Your task to perform on an android device: Go to Google Image 0: 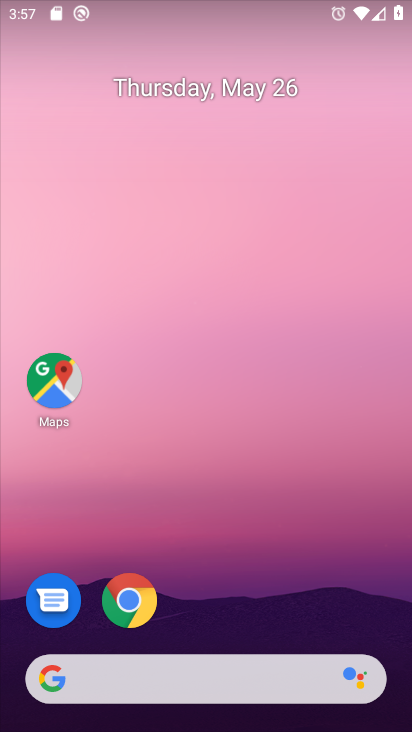
Step 0: click (151, 666)
Your task to perform on an android device: Go to Google Image 1: 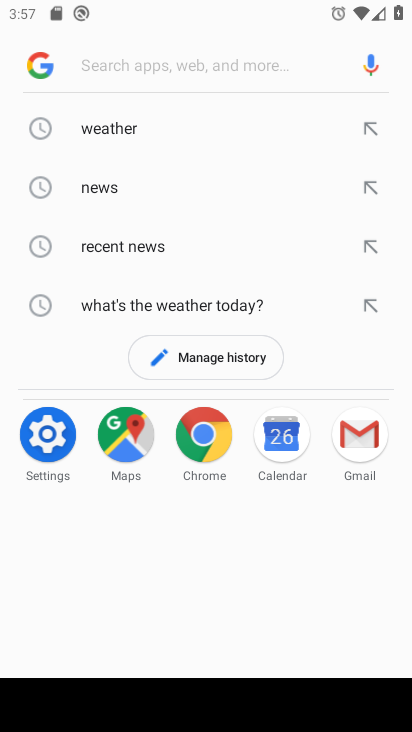
Step 1: click (41, 50)
Your task to perform on an android device: Go to Google Image 2: 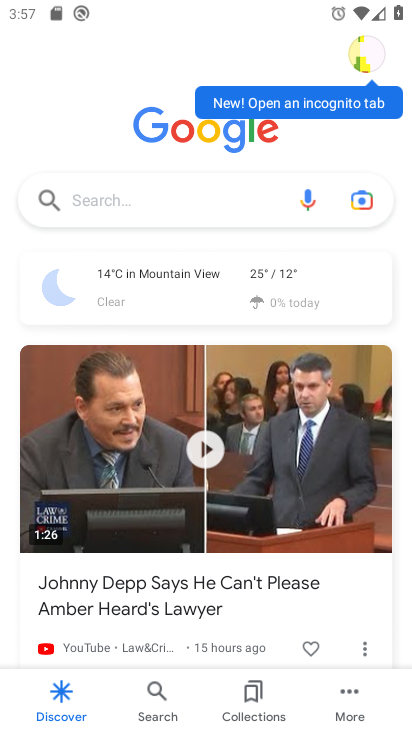
Step 2: task complete